Your task to perform on an android device: change the clock style Image 0: 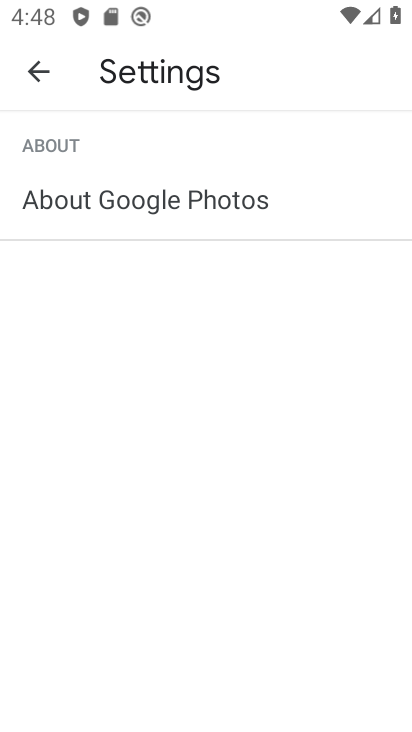
Step 0: press back button
Your task to perform on an android device: change the clock style Image 1: 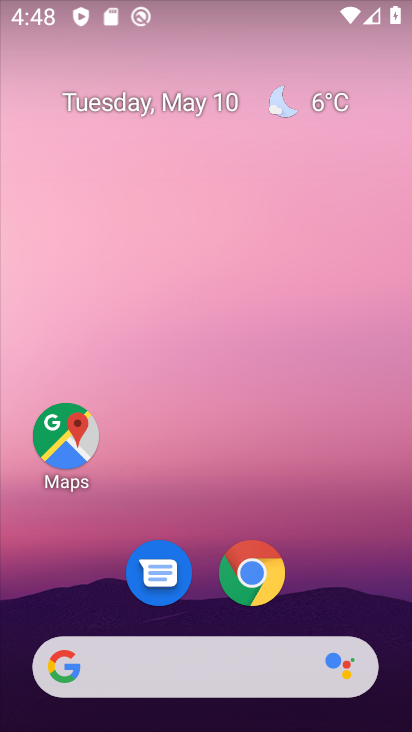
Step 1: drag from (126, 646) to (267, 176)
Your task to perform on an android device: change the clock style Image 2: 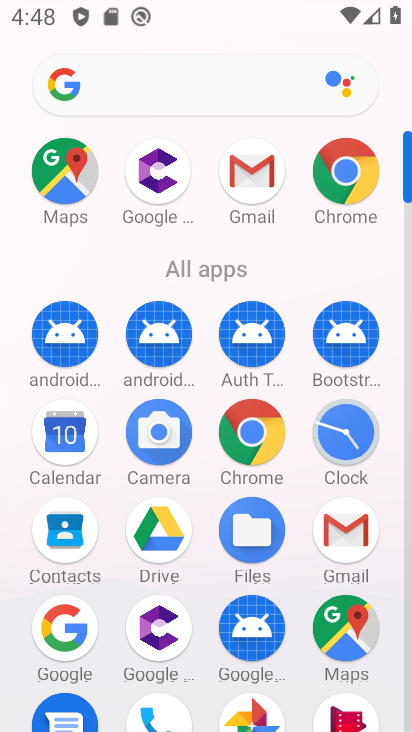
Step 2: click (351, 433)
Your task to perform on an android device: change the clock style Image 3: 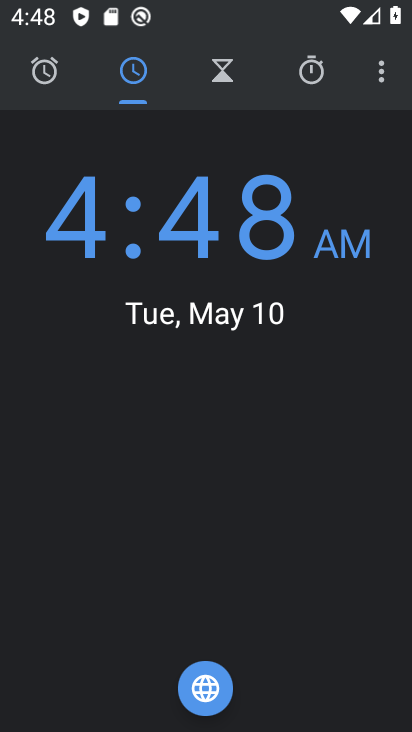
Step 3: click (381, 95)
Your task to perform on an android device: change the clock style Image 4: 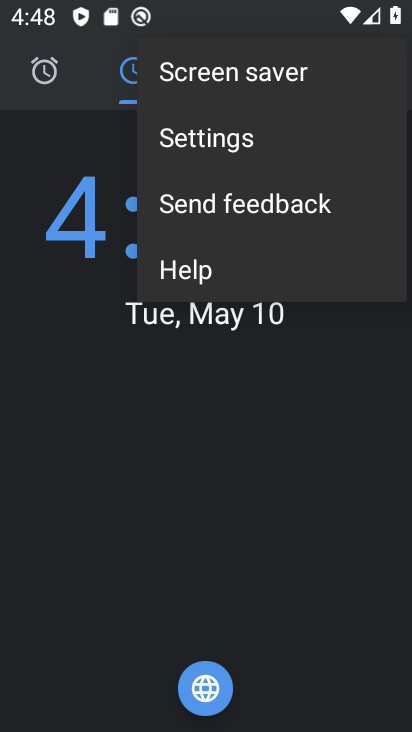
Step 4: click (337, 135)
Your task to perform on an android device: change the clock style Image 5: 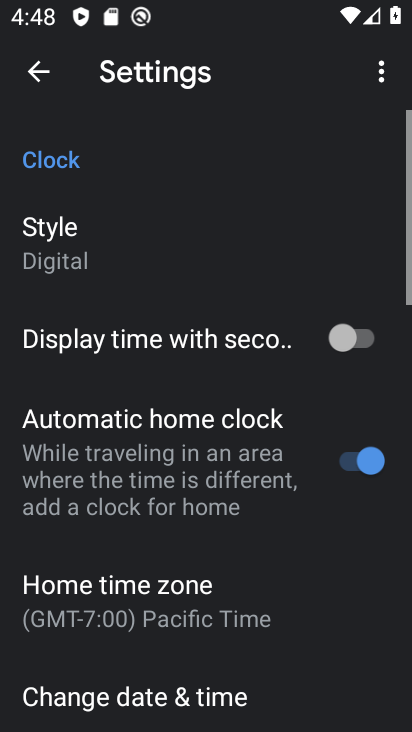
Step 5: click (295, 256)
Your task to perform on an android device: change the clock style Image 6: 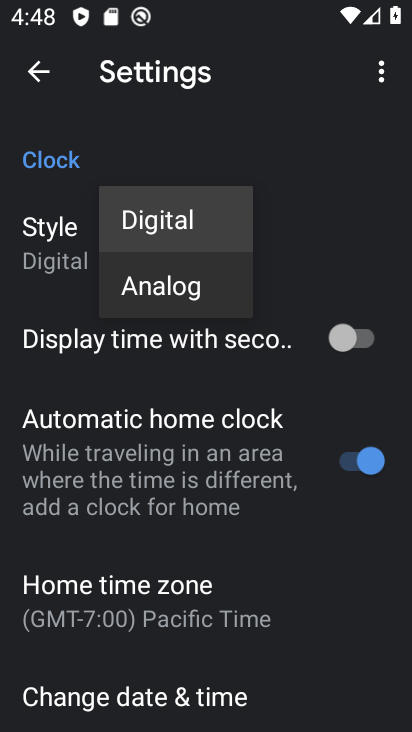
Step 6: click (184, 285)
Your task to perform on an android device: change the clock style Image 7: 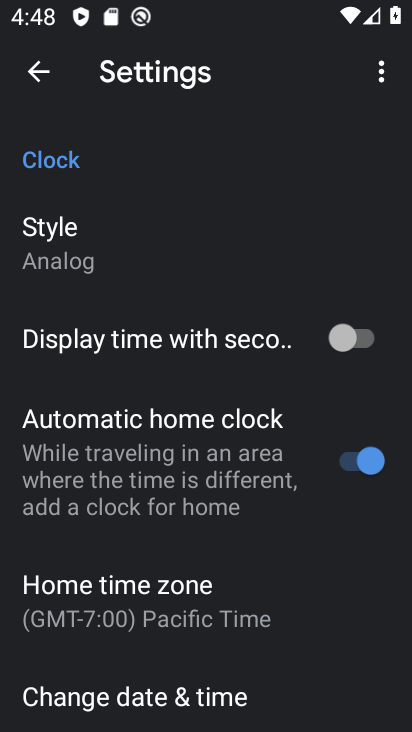
Step 7: task complete